Your task to perform on an android device: Clear the shopping cart on amazon. Add "panasonic triple a" to the cart on amazon, then select checkout. Image 0: 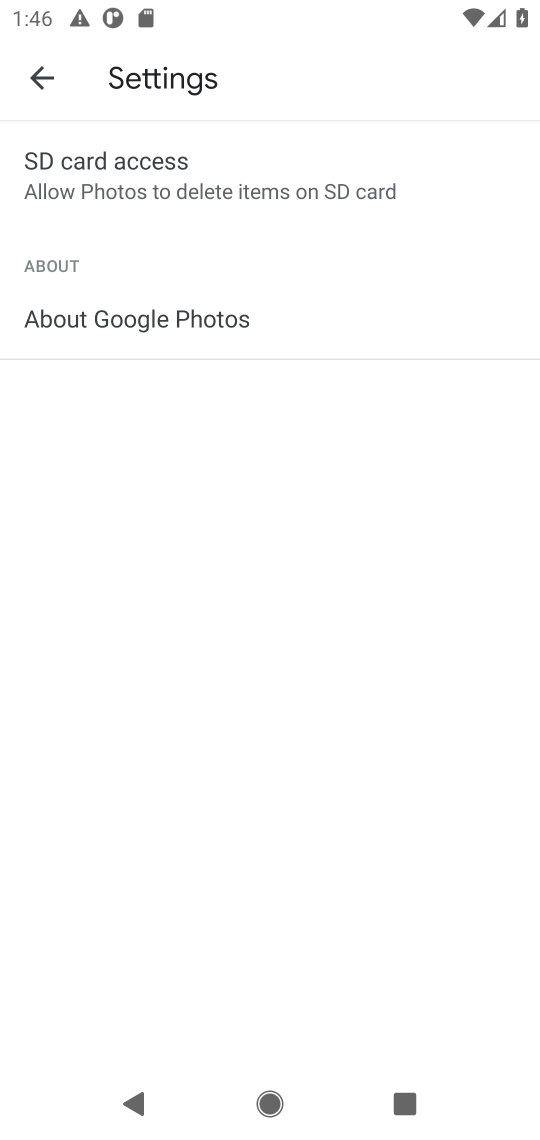
Step 0: press home button
Your task to perform on an android device: Clear the shopping cart on amazon. Add "panasonic triple a" to the cart on amazon, then select checkout. Image 1: 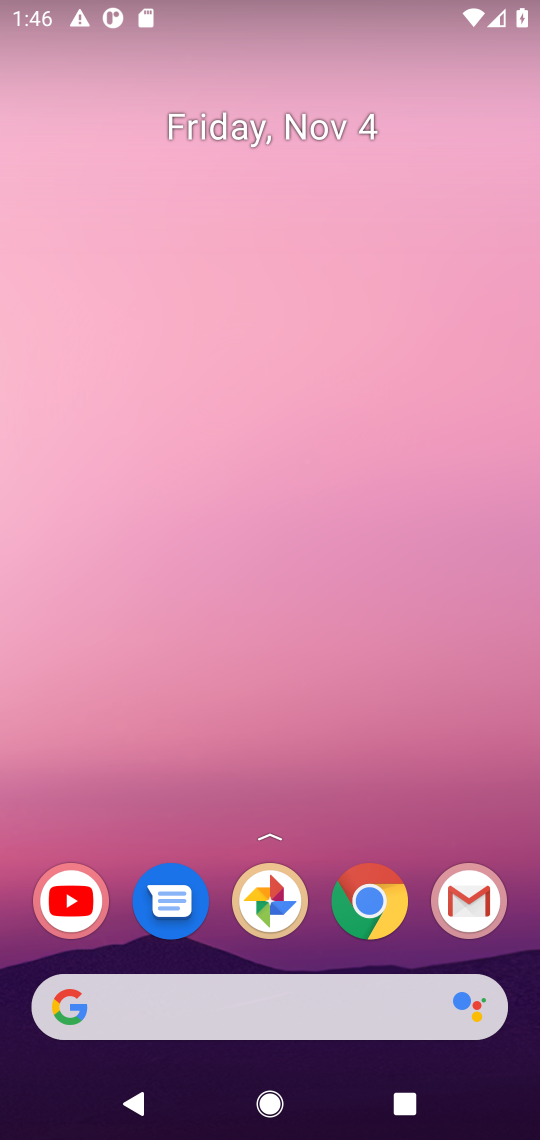
Step 1: click (357, 890)
Your task to perform on an android device: Clear the shopping cart on amazon. Add "panasonic triple a" to the cart on amazon, then select checkout. Image 2: 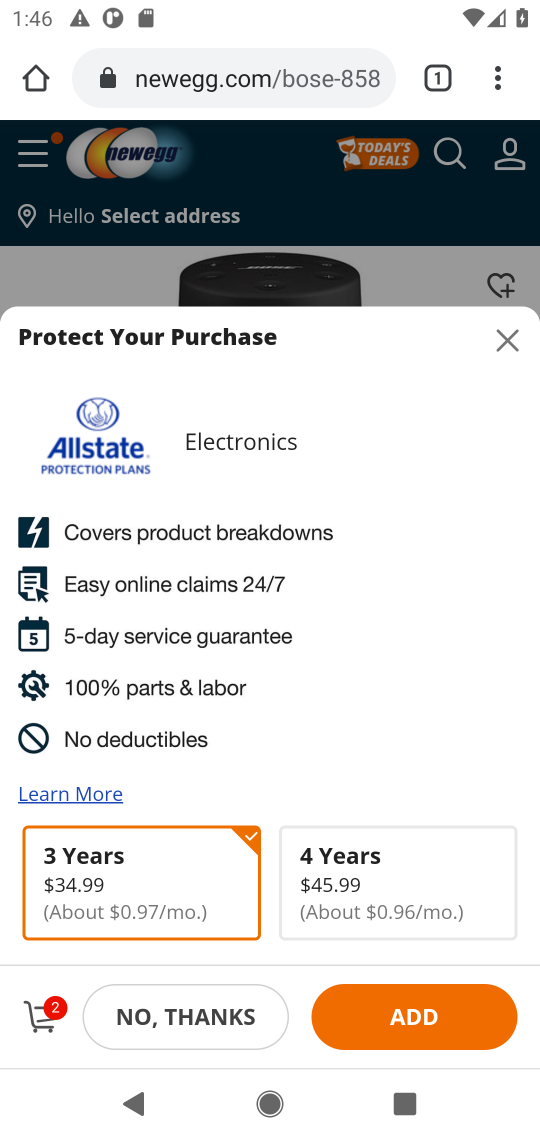
Step 2: click (293, 78)
Your task to perform on an android device: Clear the shopping cart on amazon. Add "panasonic triple a" to the cart on amazon, then select checkout. Image 3: 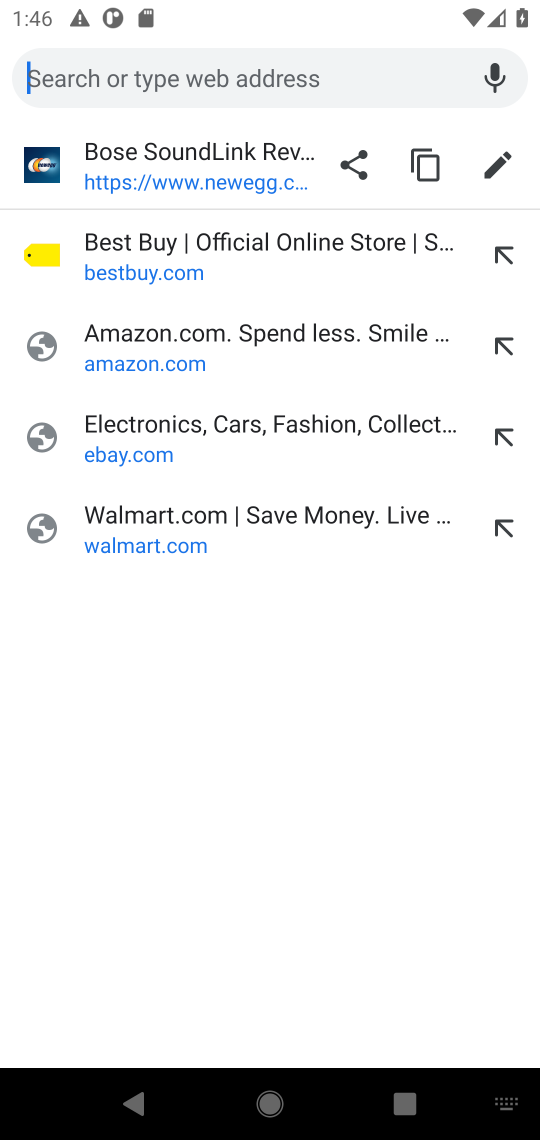
Step 3: click (170, 331)
Your task to perform on an android device: Clear the shopping cart on amazon. Add "panasonic triple a" to the cart on amazon, then select checkout. Image 4: 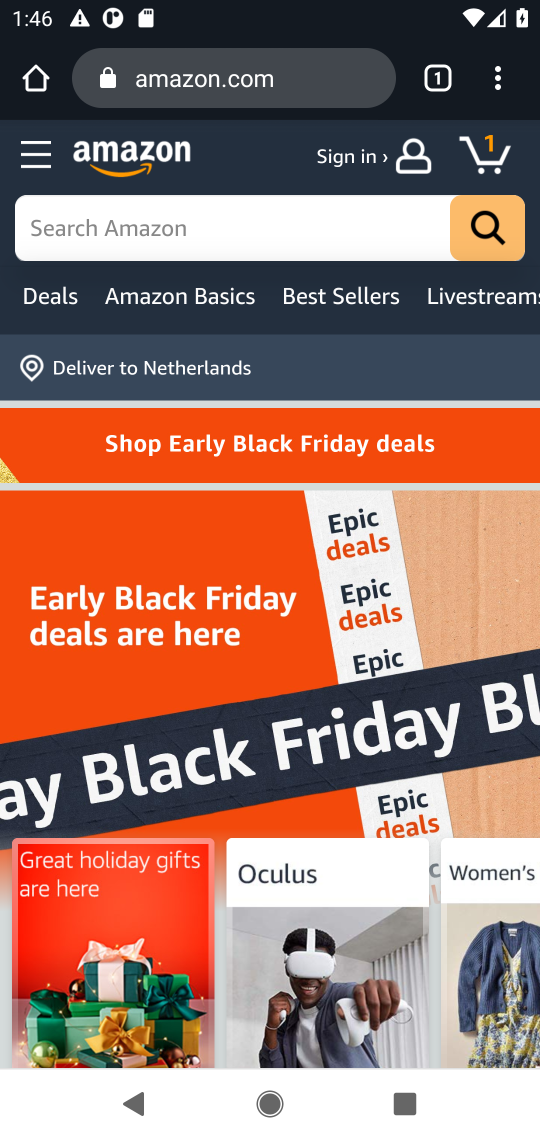
Step 4: click (493, 158)
Your task to perform on an android device: Clear the shopping cart on amazon. Add "panasonic triple a" to the cart on amazon, then select checkout. Image 5: 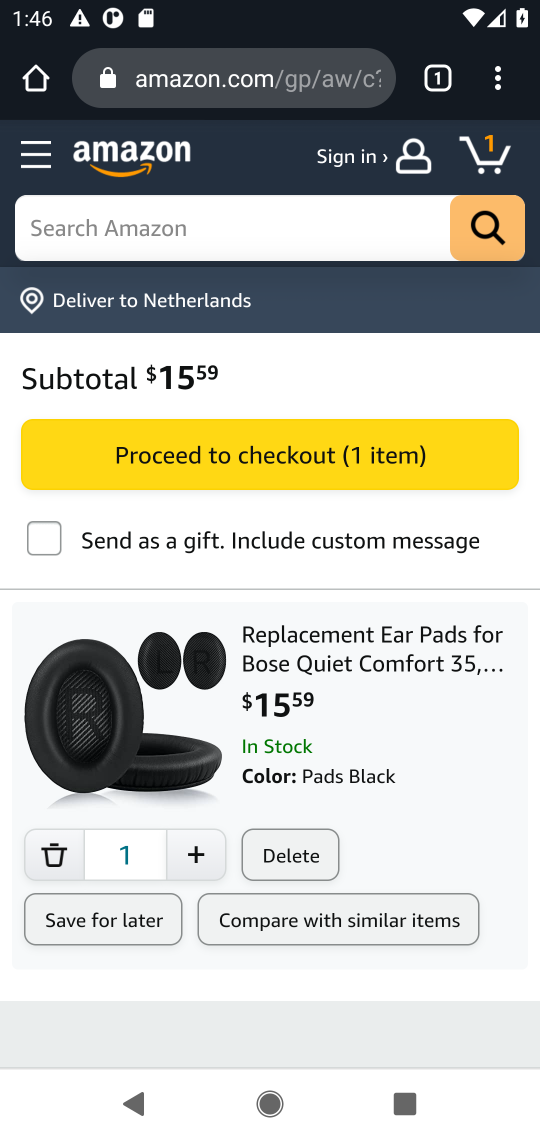
Step 5: click (302, 849)
Your task to perform on an android device: Clear the shopping cart on amazon. Add "panasonic triple a" to the cart on amazon, then select checkout. Image 6: 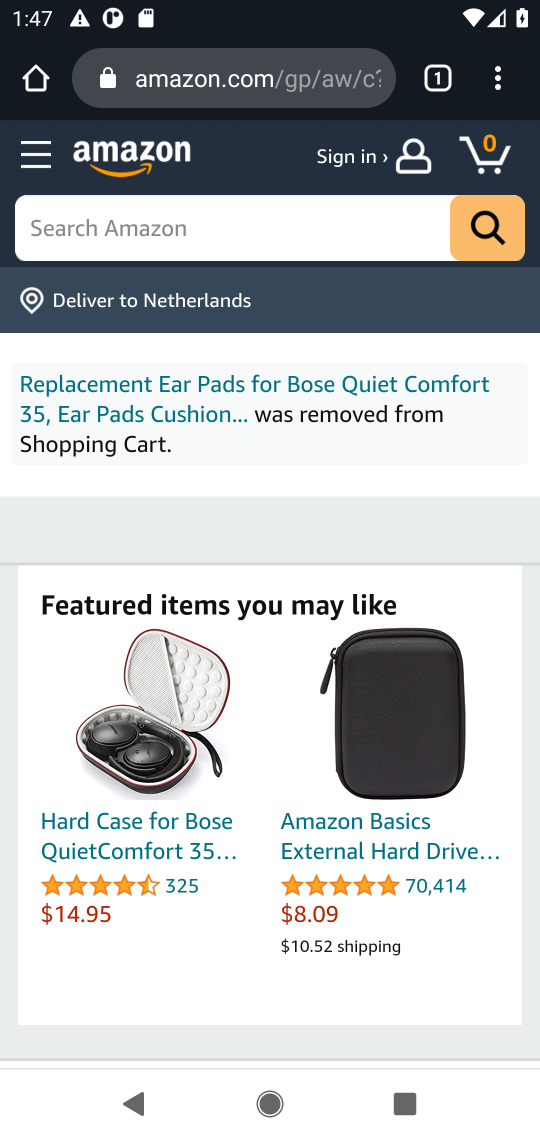
Step 6: click (246, 225)
Your task to perform on an android device: Clear the shopping cart on amazon. Add "panasonic triple a" to the cart on amazon, then select checkout. Image 7: 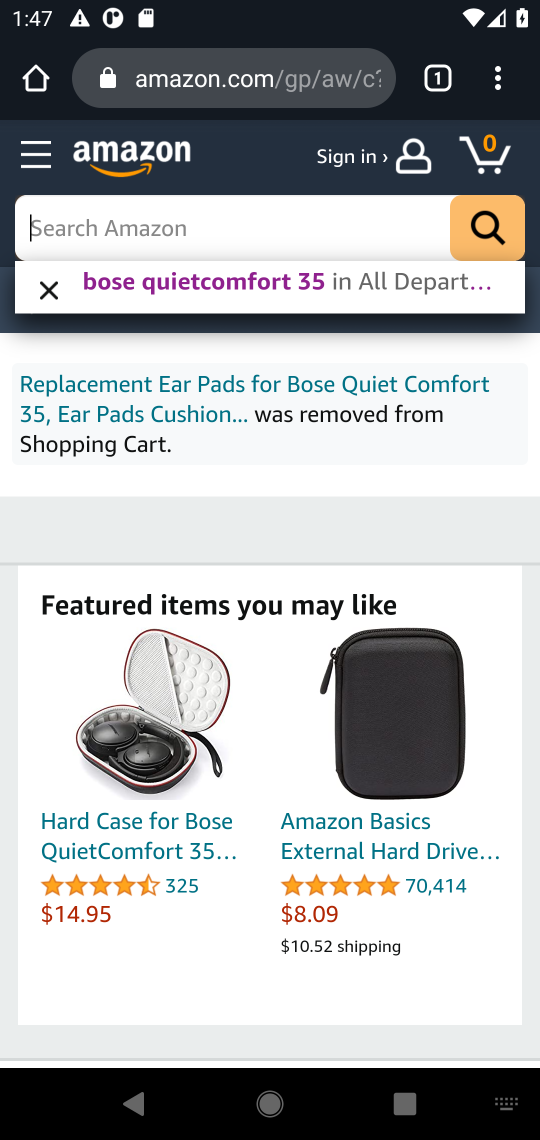
Step 7: type "panasonic triple a"
Your task to perform on an android device: Clear the shopping cart on amazon. Add "panasonic triple a" to the cart on amazon, then select checkout. Image 8: 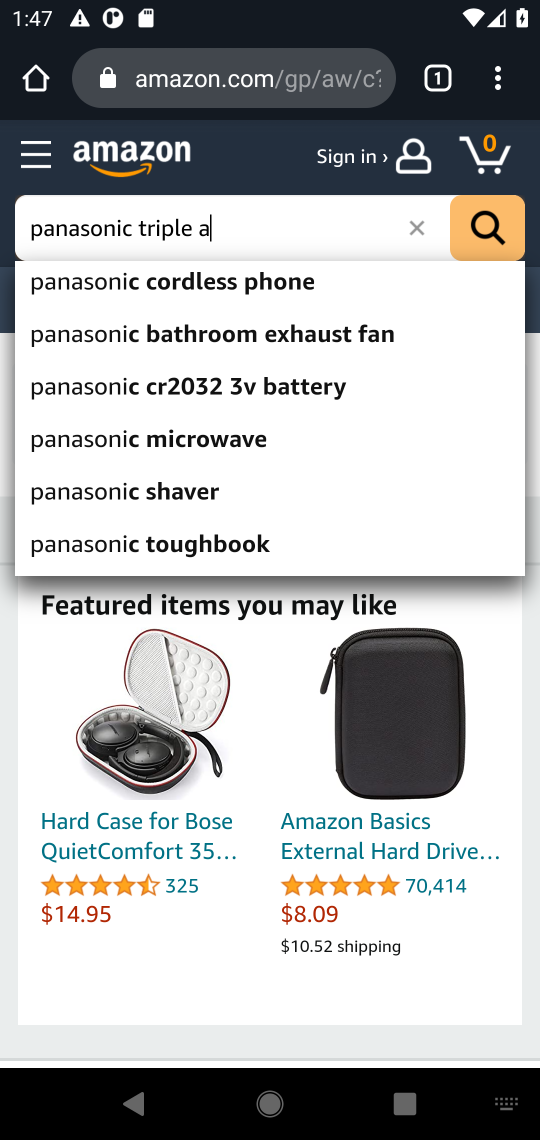
Step 8: press enter
Your task to perform on an android device: Clear the shopping cart on amazon. Add "panasonic triple a" to the cart on amazon, then select checkout. Image 9: 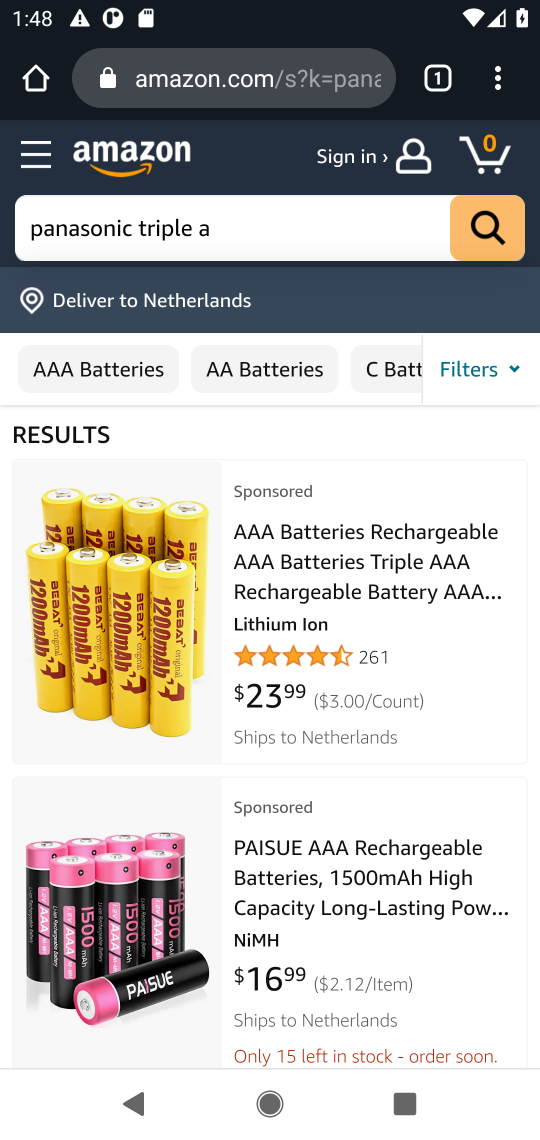
Step 9: drag from (378, 854) to (377, 526)
Your task to perform on an android device: Clear the shopping cart on amazon. Add "panasonic triple a" to the cart on amazon, then select checkout. Image 10: 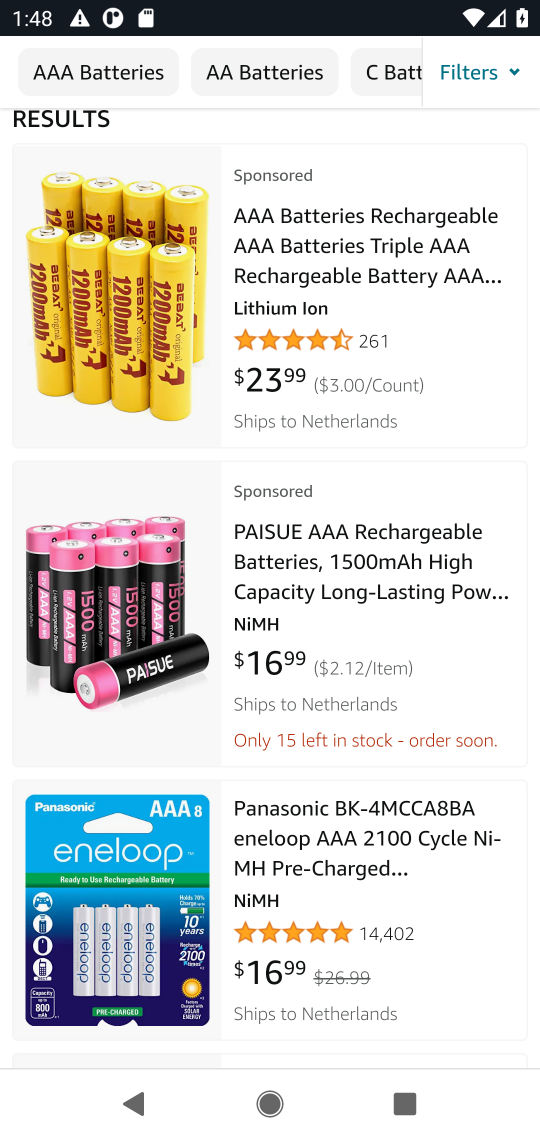
Step 10: click (349, 851)
Your task to perform on an android device: Clear the shopping cart on amazon. Add "panasonic triple a" to the cart on amazon, then select checkout. Image 11: 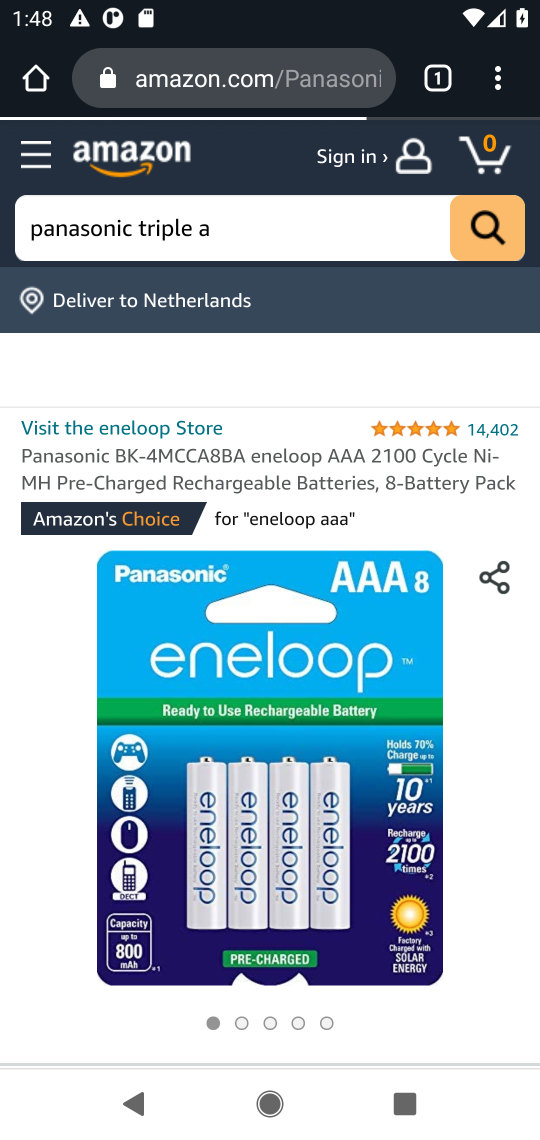
Step 11: drag from (342, 903) to (380, 302)
Your task to perform on an android device: Clear the shopping cart on amazon. Add "panasonic triple a" to the cart on amazon, then select checkout. Image 12: 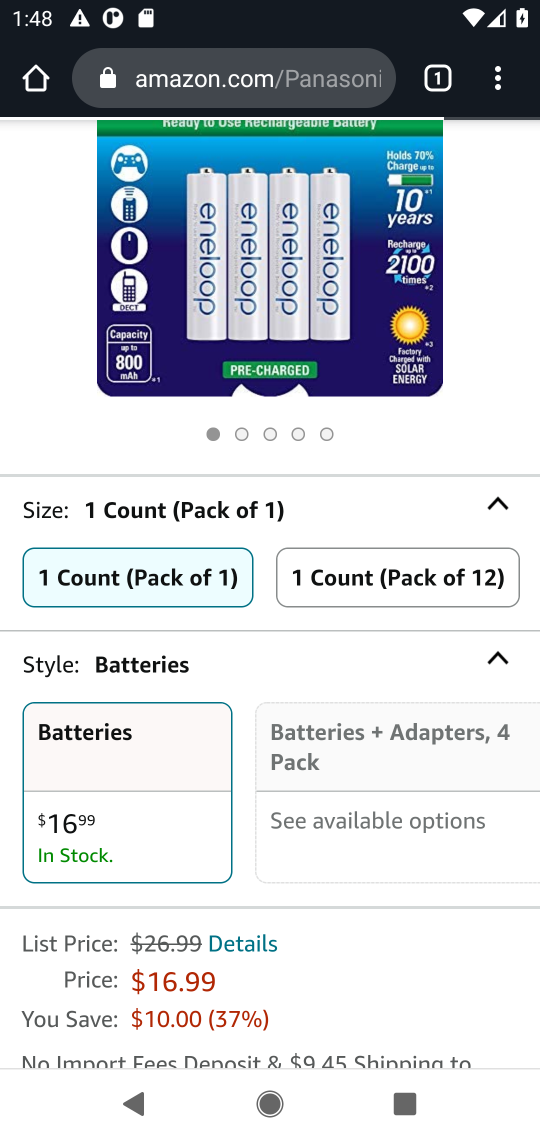
Step 12: drag from (421, 926) to (400, 464)
Your task to perform on an android device: Clear the shopping cart on amazon. Add "panasonic triple a" to the cart on amazon, then select checkout. Image 13: 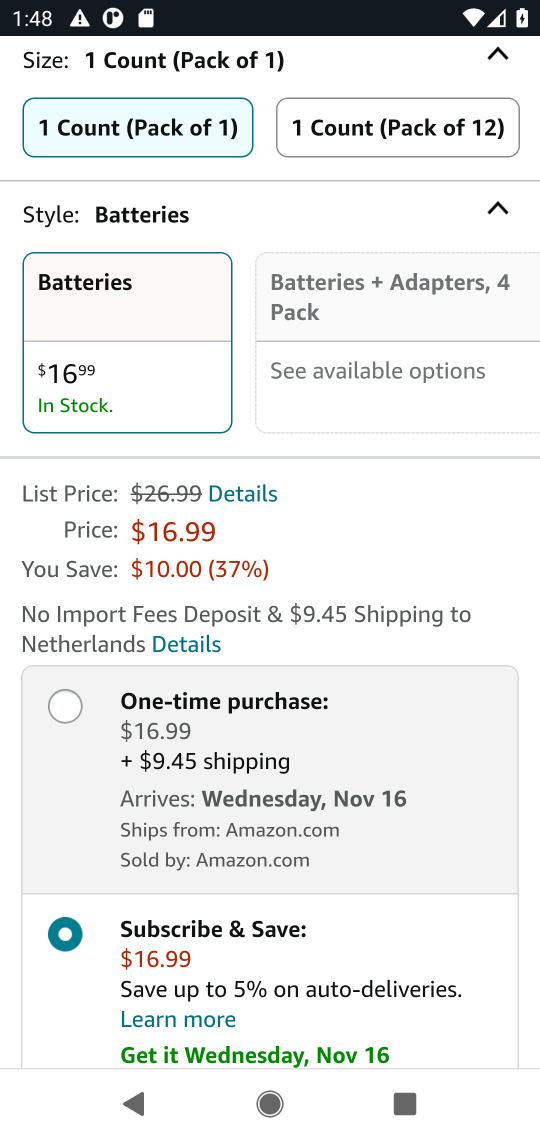
Step 13: drag from (454, 868) to (415, 332)
Your task to perform on an android device: Clear the shopping cart on amazon. Add "panasonic triple a" to the cart on amazon, then select checkout. Image 14: 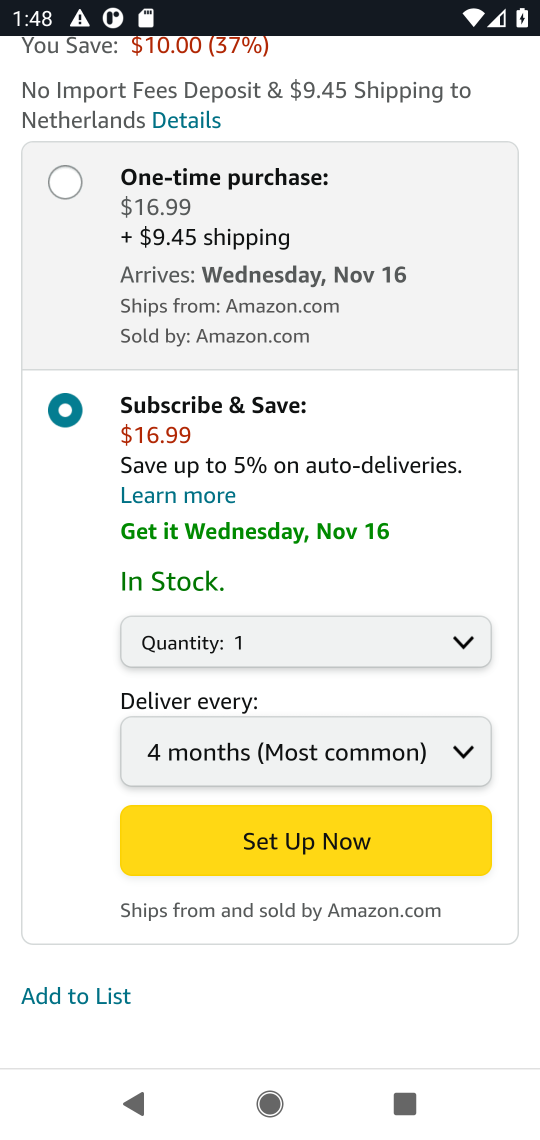
Step 14: press back button
Your task to perform on an android device: Clear the shopping cart on amazon. Add "panasonic triple a" to the cart on amazon, then select checkout. Image 15: 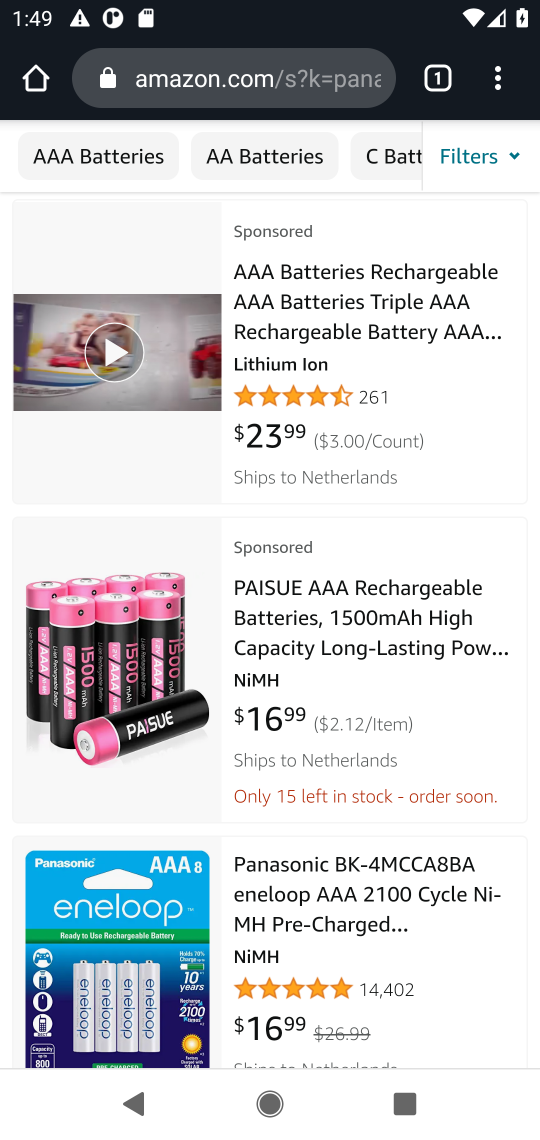
Step 15: drag from (396, 534) to (387, 292)
Your task to perform on an android device: Clear the shopping cart on amazon. Add "panasonic triple a" to the cart on amazon, then select checkout. Image 16: 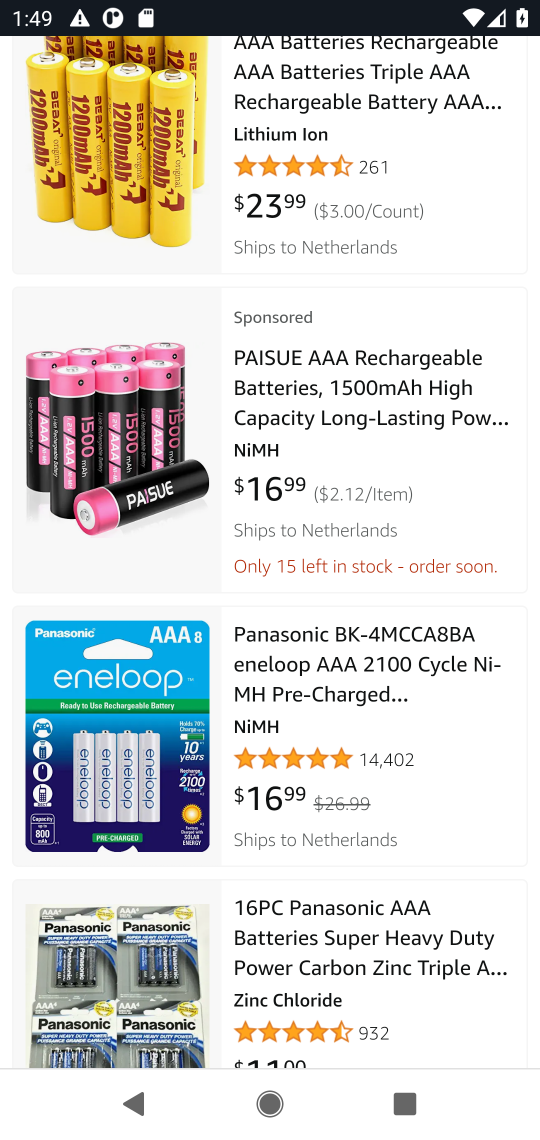
Step 16: click (403, 933)
Your task to perform on an android device: Clear the shopping cart on amazon. Add "panasonic triple a" to the cart on amazon, then select checkout. Image 17: 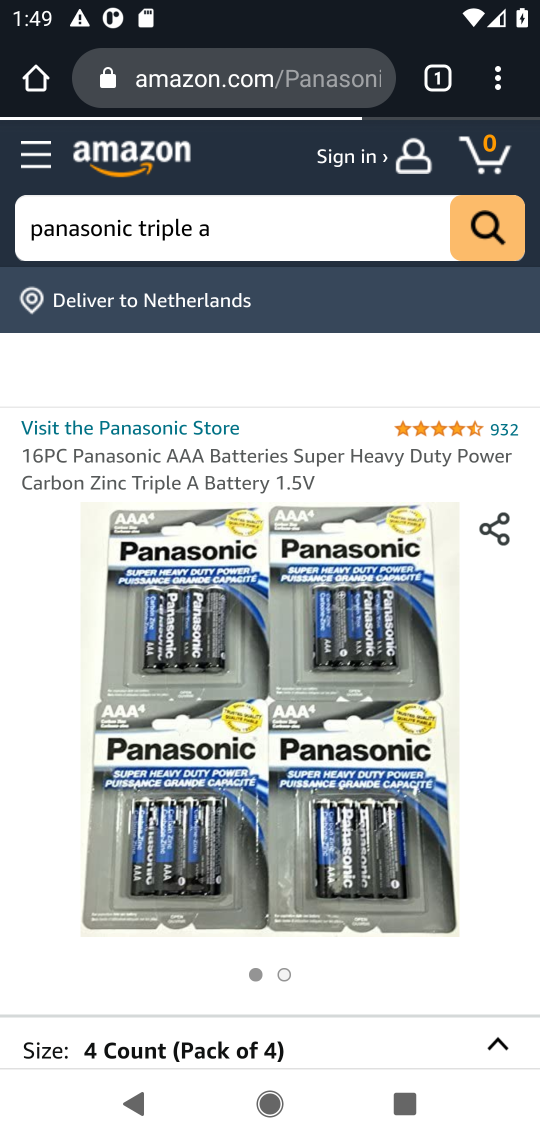
Step 17: drag from (384, 902) to (392, 435)
Your task to perform on an android device: Clear the shopping cart on amazon. Add "panasonic triple a" to the cart on amazon, then select checkout. Image 18: 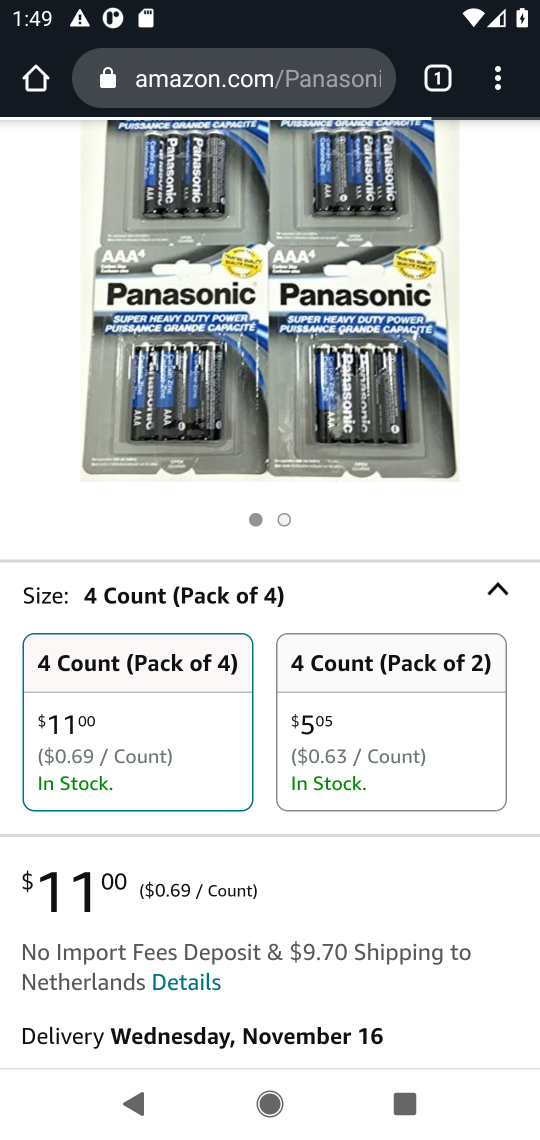
Step 18: drag from (437, 913) to (475, 492)
Your task to perform on an android device: Clear the shopping cart on amazon. Add "panasonic triple a" to the cart on amazon, then select checkout. Image 19: 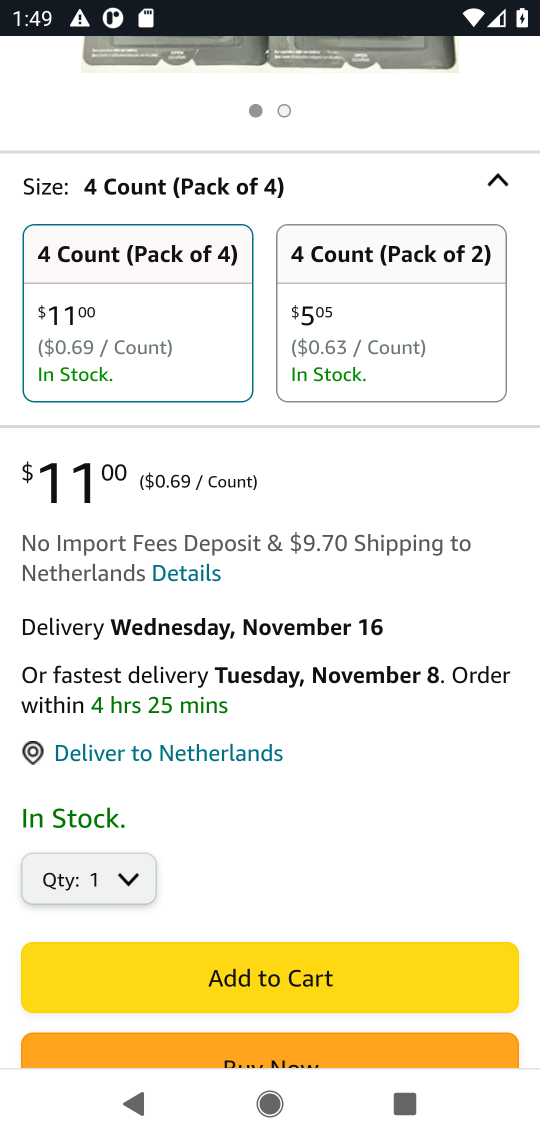
Step 19: click (279, 965)
Your task to perform on an android device: Clear the shopping cart on amazon. Add "panasonic triple a" to the cart on amazon, then select checkout. Image 20: 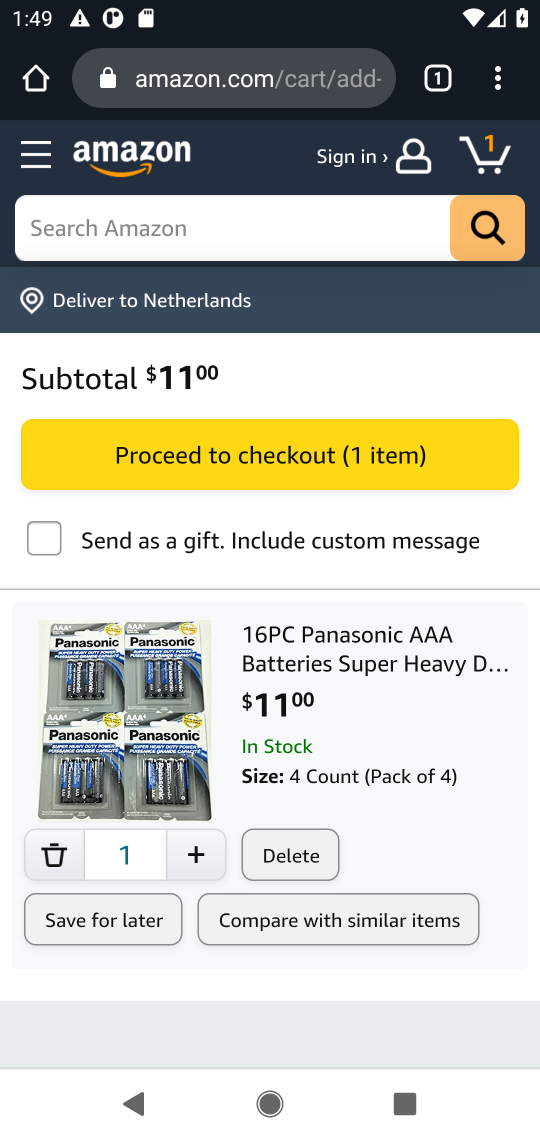
Step 20: click (255, 454)
Your task to perform on an android device: Clear the shopping cart on amazon. Add "panasonic triple a" to the cart on amazon, then select checkout. Image 21: 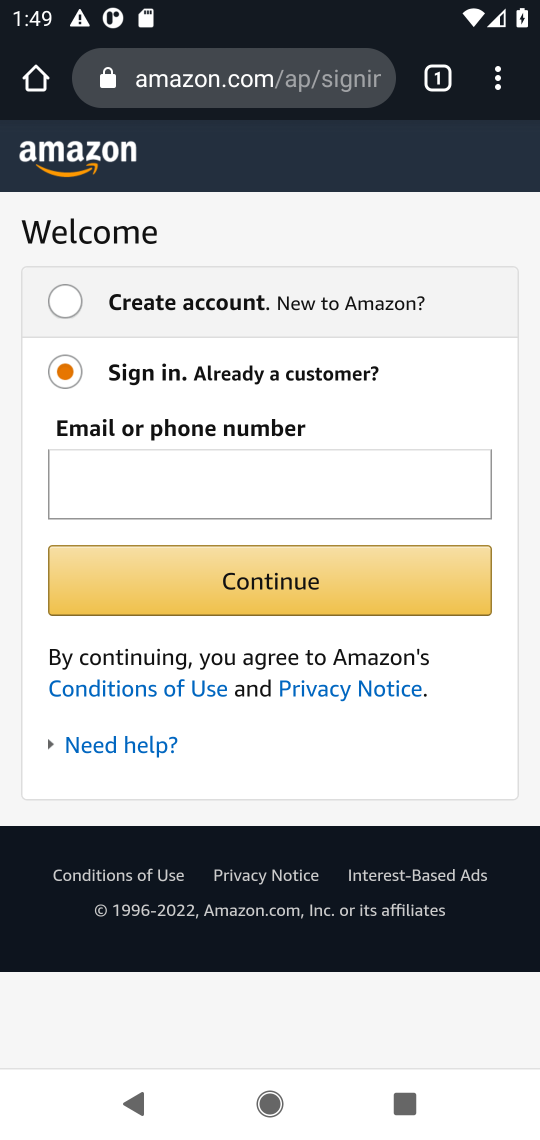
Step 21: task complete